Your task to perform on an android device: open app "TextNow: Call + Text Unlimited" (install if not already installed) Image 0: 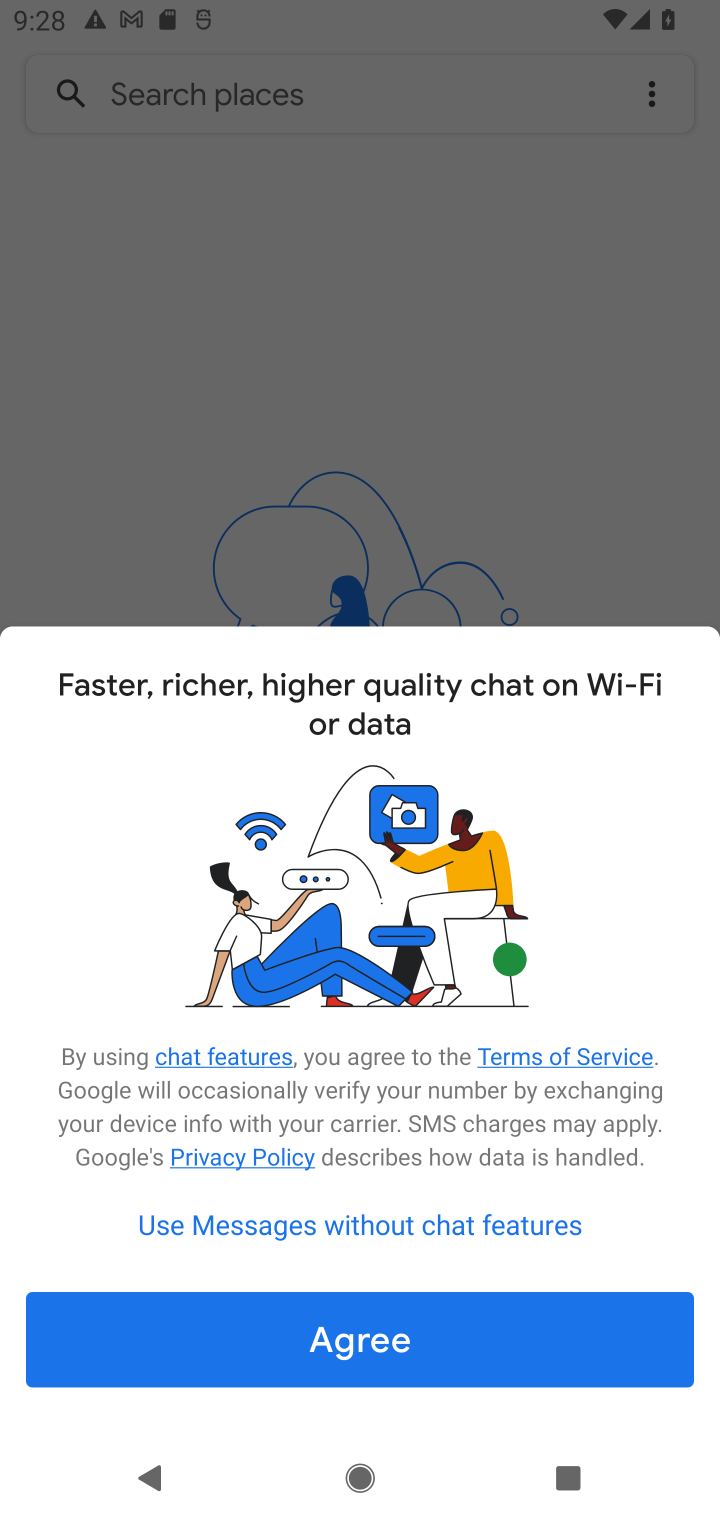
Step 0: press home button
Your task to perform on an android device: open app "TextNow: Call + Text Unlimited" (install if not already installed) Image 1: 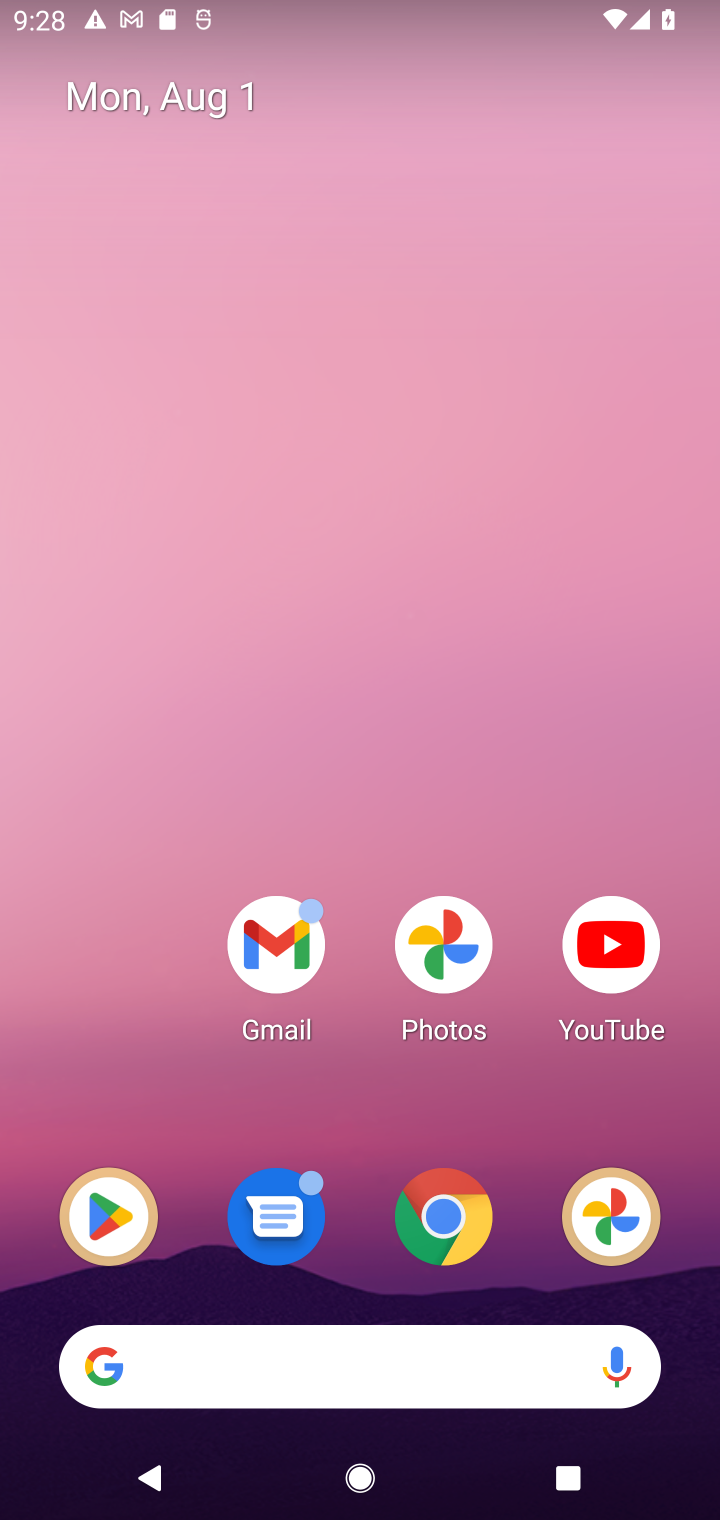
Step 1: click (92, 1221)
Your task to perform on an android device: open app "TextNow: Call + Text Unlimited" (install if not already installed) Image 2: 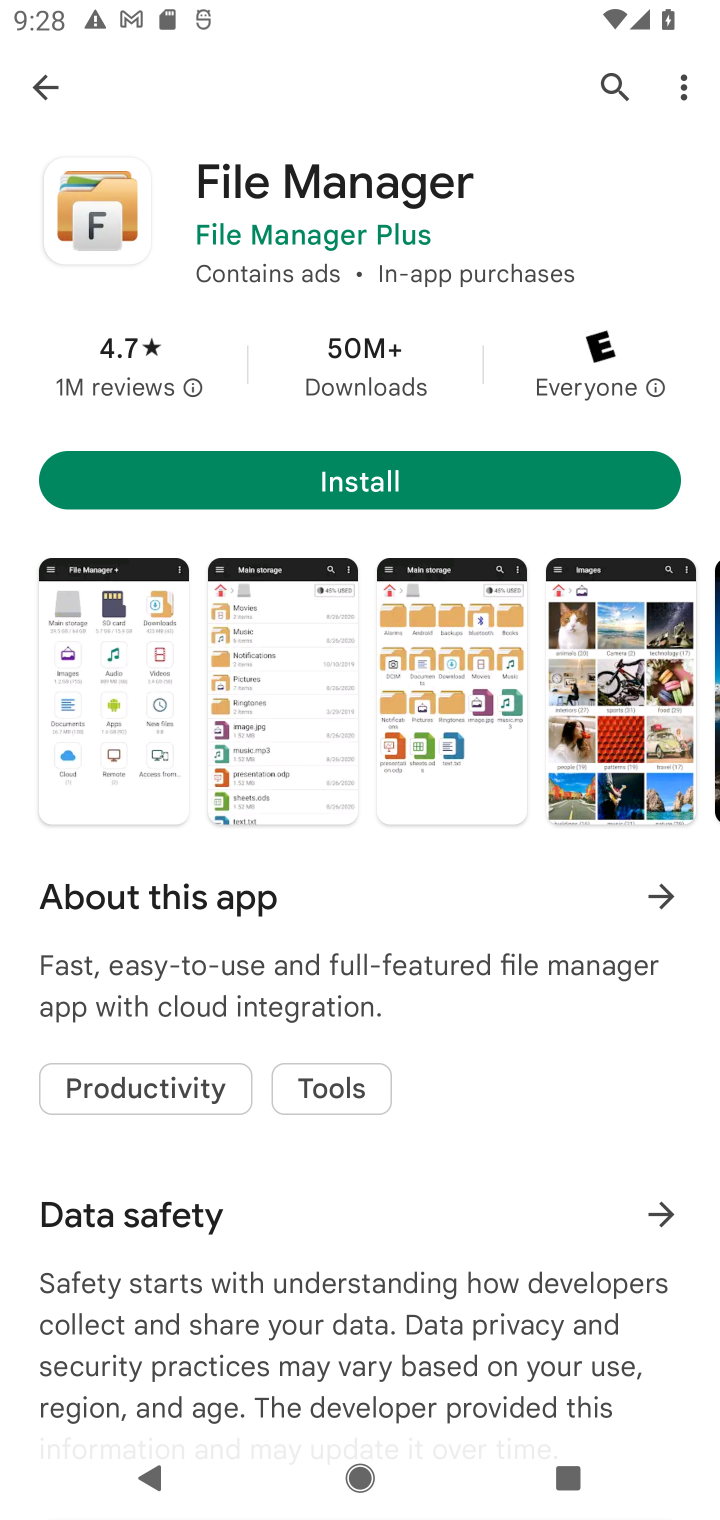
Step 2: click (596, 75)
Your task to perform on an android device: open app "TextNow: Call + Text Unlimited" (install if not already installed) Image 3: 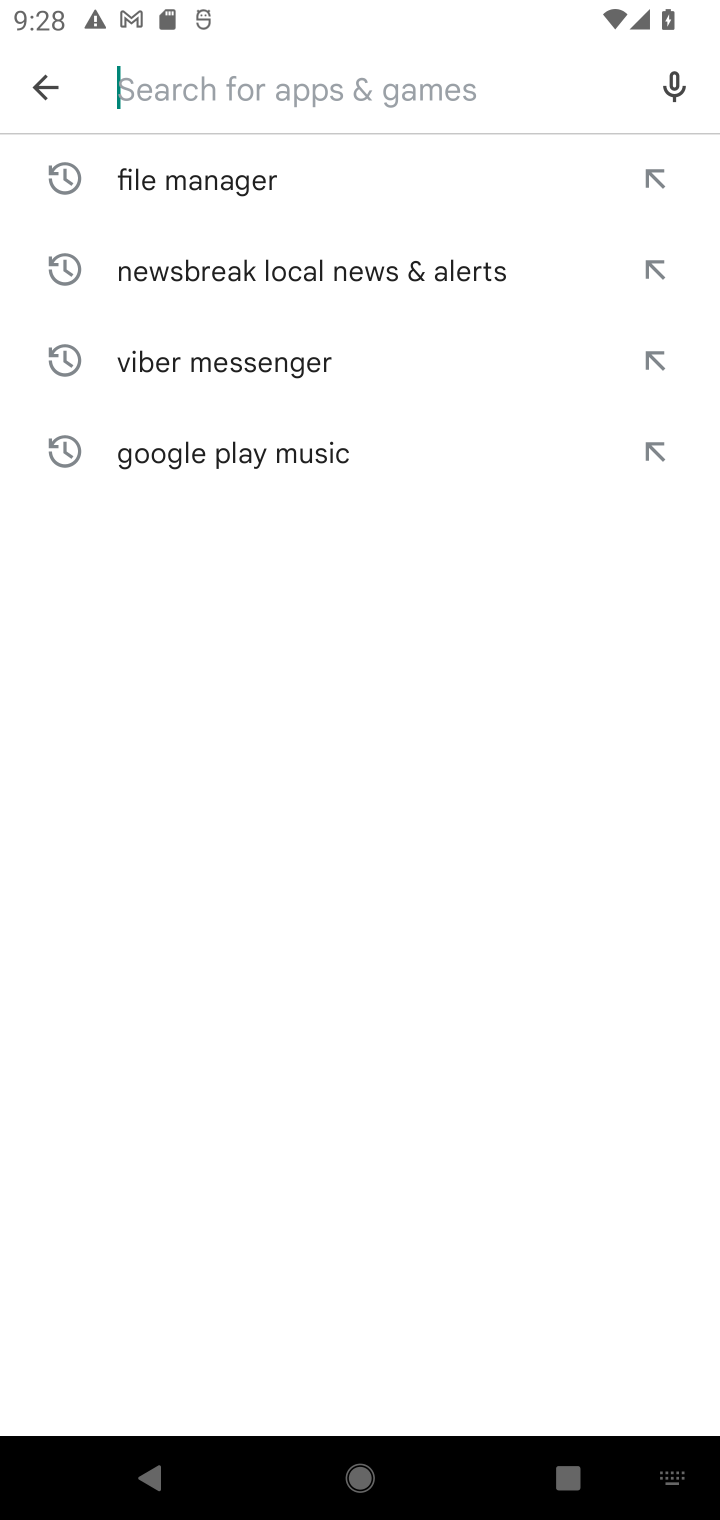
Step 3: click (494, 82)
Your task to perform on an android device: open app "TextNow: Call + Text Unlimited" (install if not already installed) Image 4: 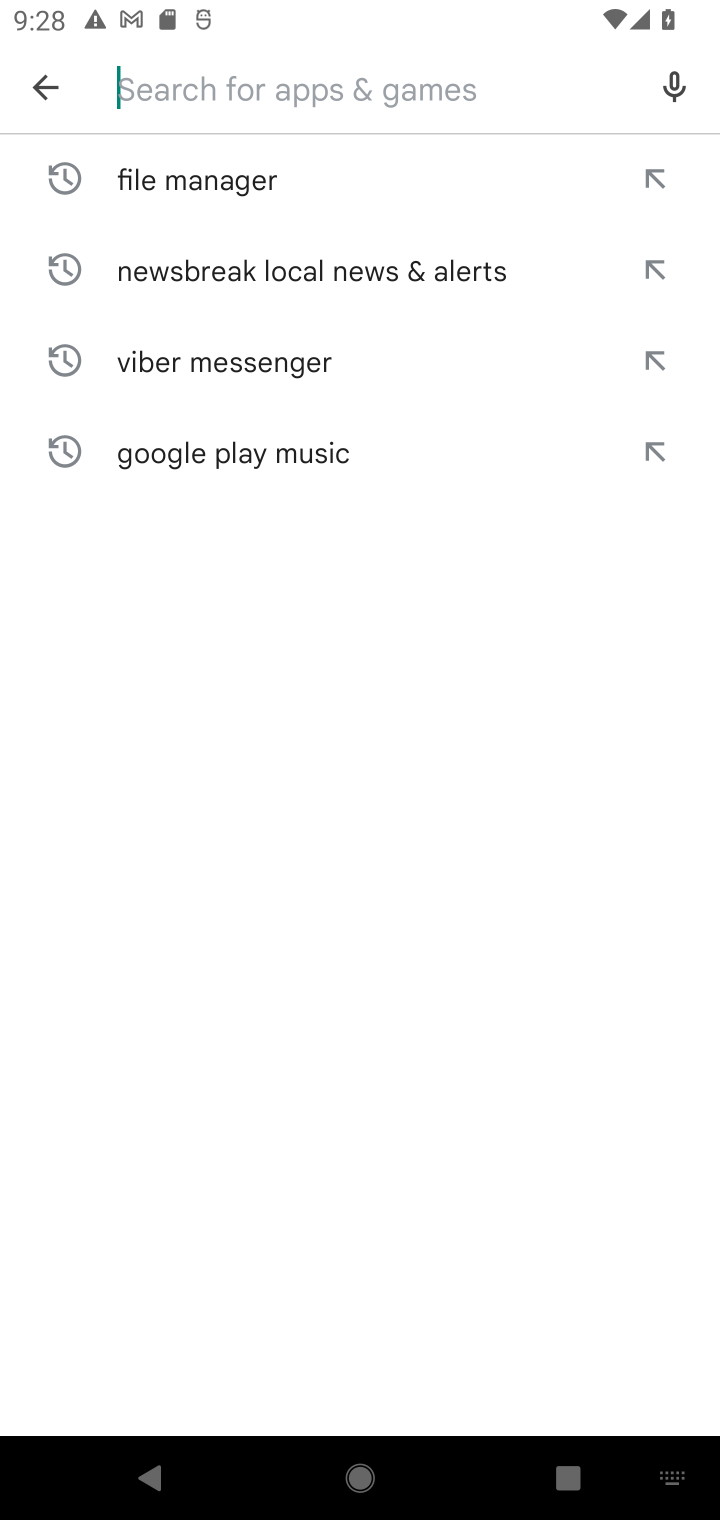
Step 4: type "TextNow: Call + Text Unlimited"
Your task to perform on an android device: open app "TextNow: Call + Text Unlimited" (install if not already installed) Image 5: 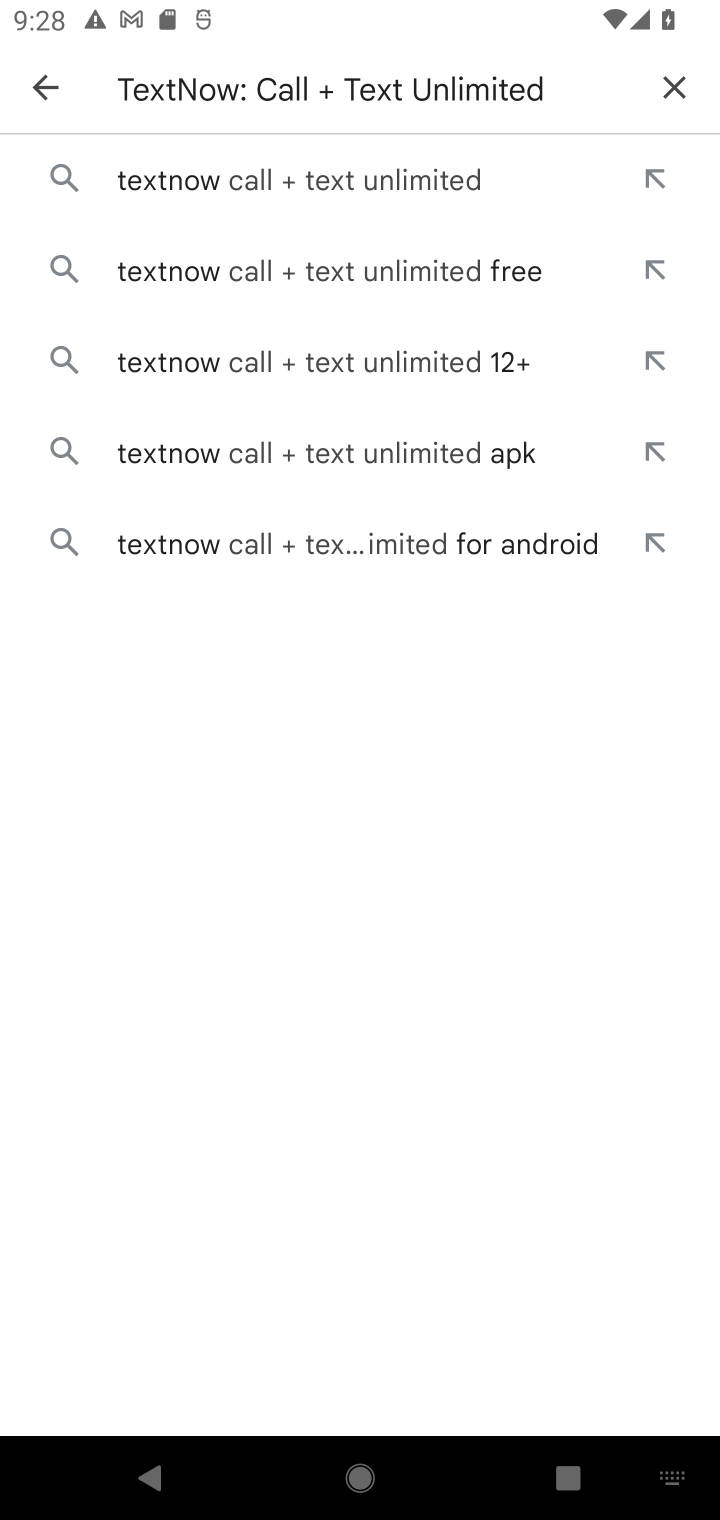
Step 5: click (187, 183)
Your task to perform on an android device: open app "TextNow: Call + Text Unlimited" (install if not already installed) Image 6: 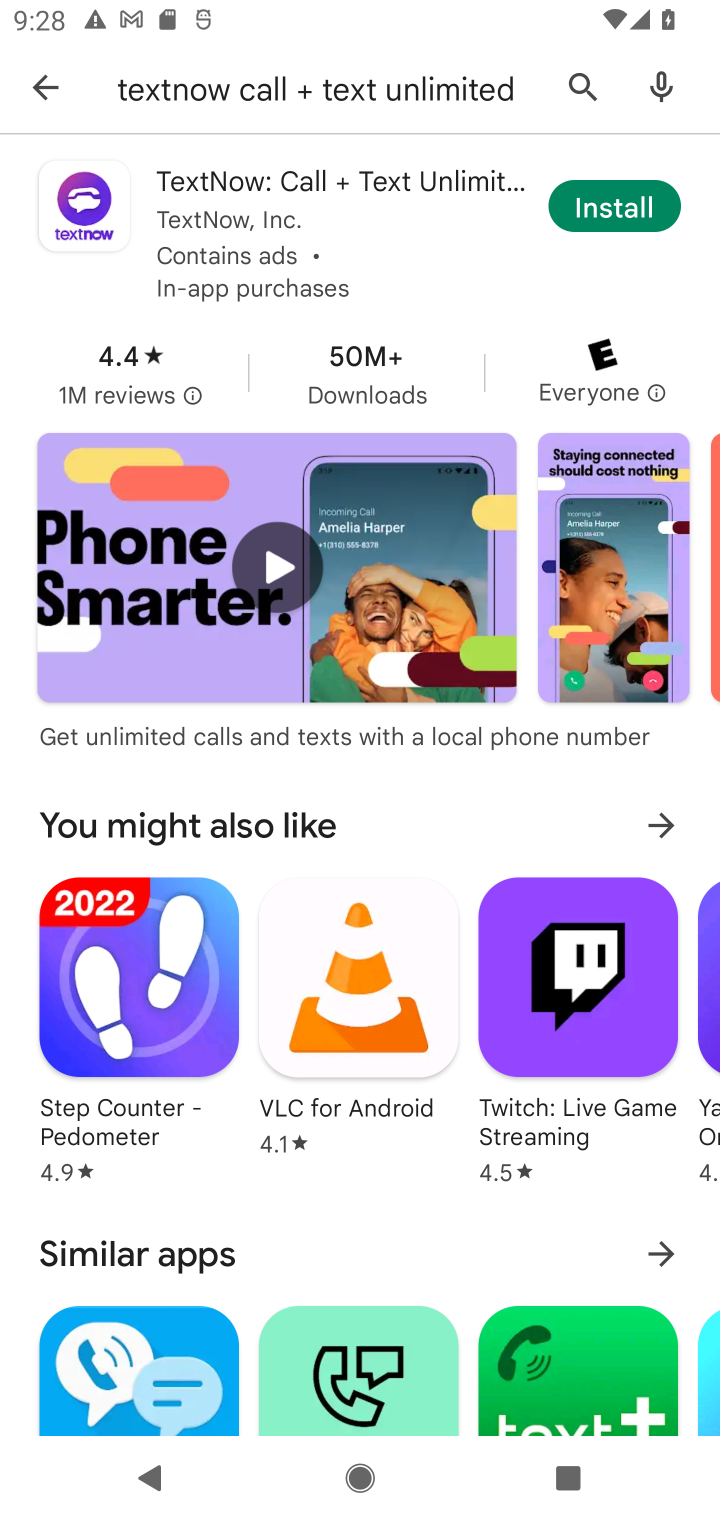
Step 6: click (578, 206)
Your task to perform on an android device: open app "TextNow: Call + Text Unlimited" (install if not already installed) Image 7: 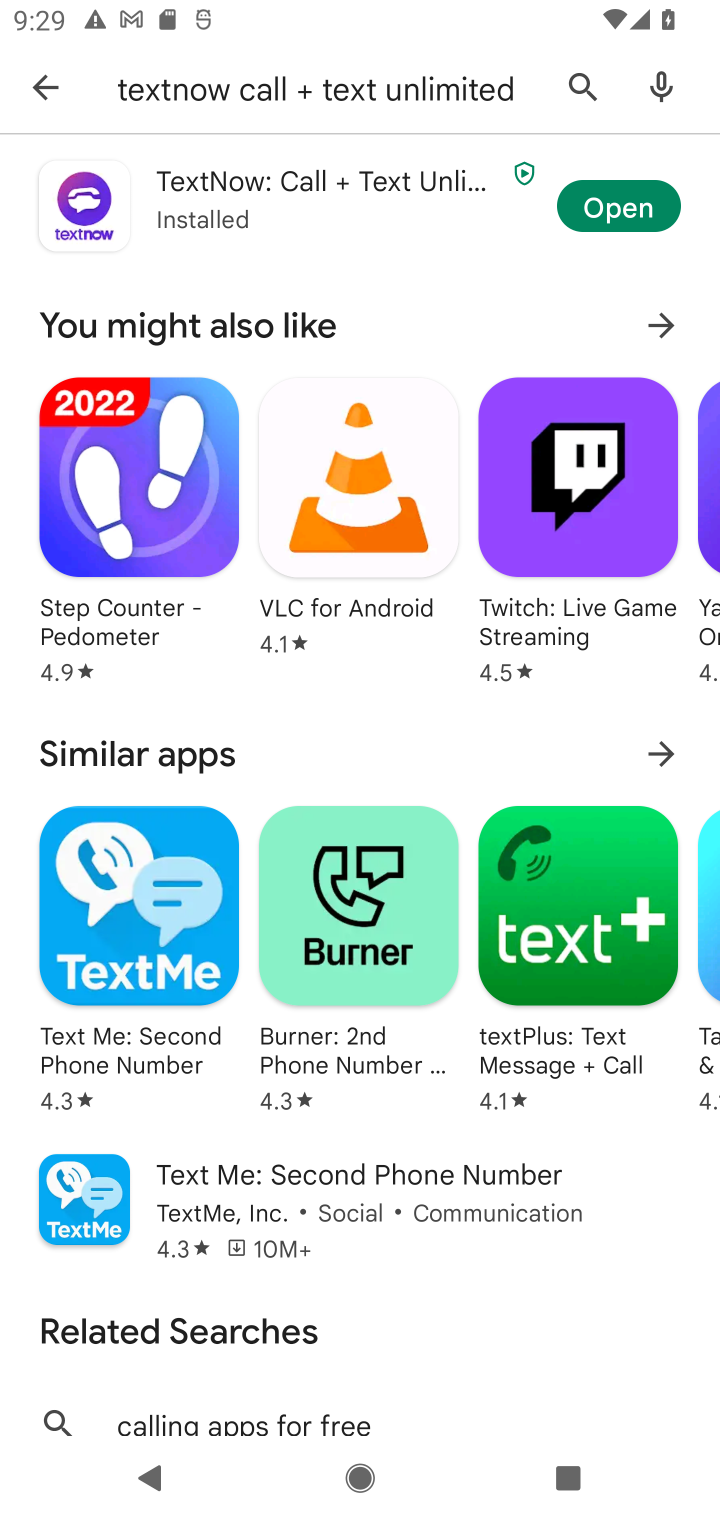
Step 7: click (578, 206)
Your task to perform on an android device: open app "TextNow: Call + Text Unlimited" (install if not already installed) Image 8: 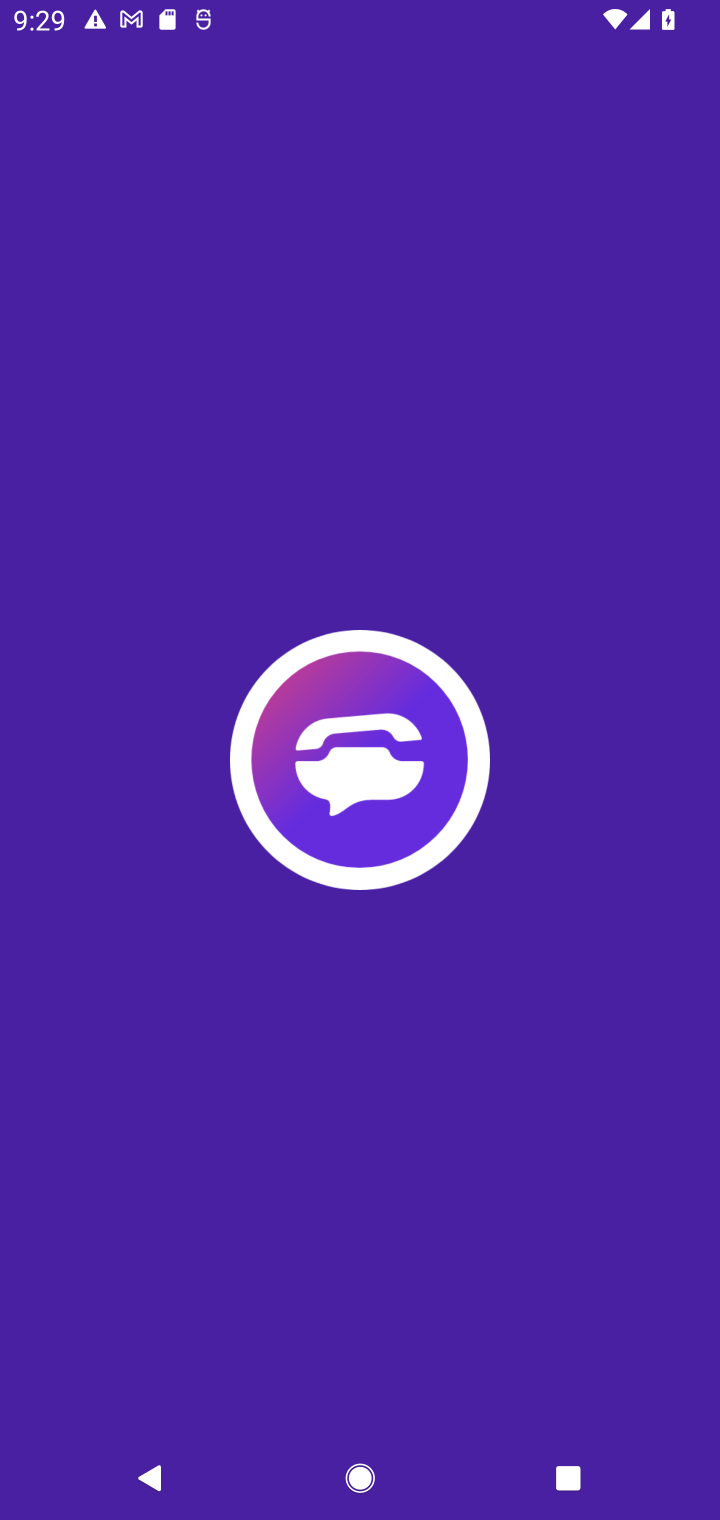
Step 8: task complete